Your task to perform on an android device: Add "razer thresher" to the cart on amazon.com Image 0: 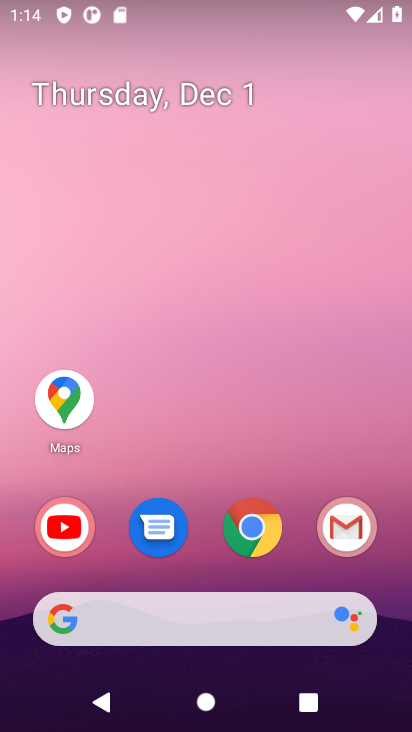
Step 0: click (255, 539)
Your task to perform on an android device: Add "razer thresher" to the cart on amazon.com Image 1: 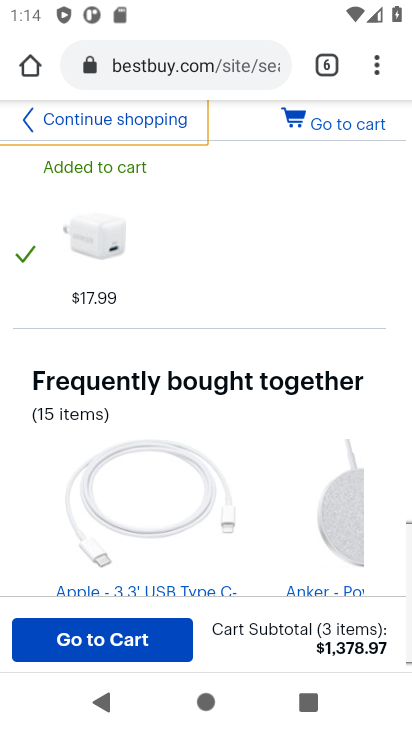
Step 1: click (159, 70)
Your task to perform on an android device: Add "razer thresher" to the cart on amazon.com Image 2: 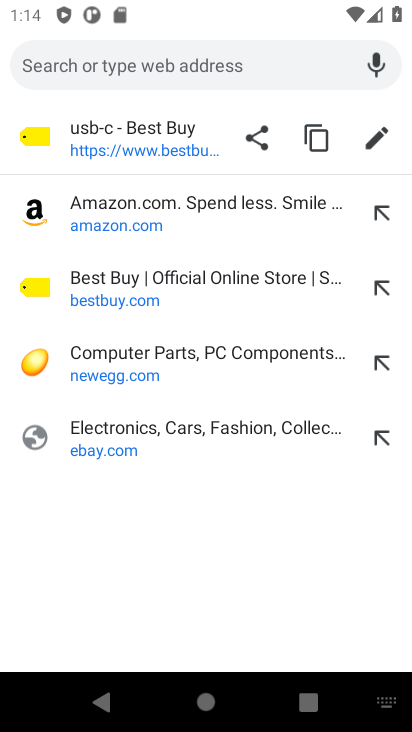
Step 2: click (108, 212)
Your task to perform on an android device: Add "razer thresher" to the cart on amazon.com Image 3: 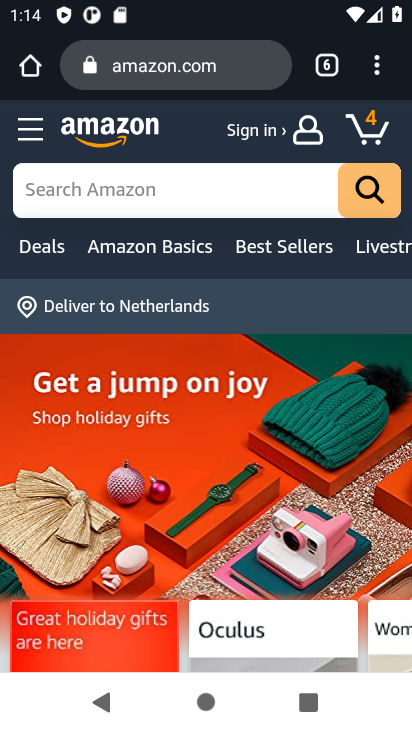
Step 3: click (125, 197)
Your task to perform on an android device: Add "razer thresher" to the cart on amazon.com Image 4: 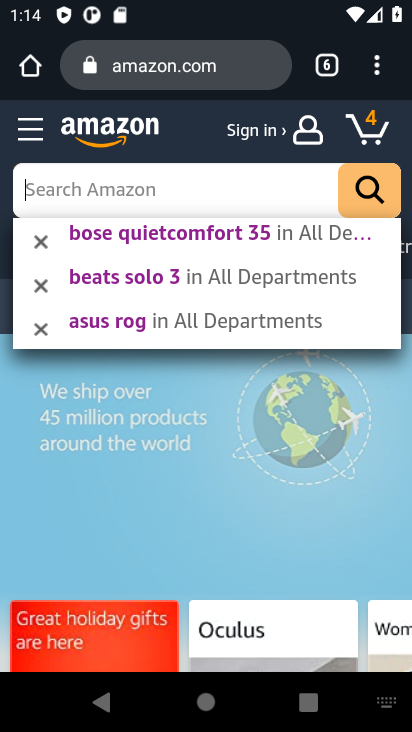
Step 4: type "razer thresher"
Your task to perform on an android device: Add "razer thresher" to the cart on amazon.com Image 5: 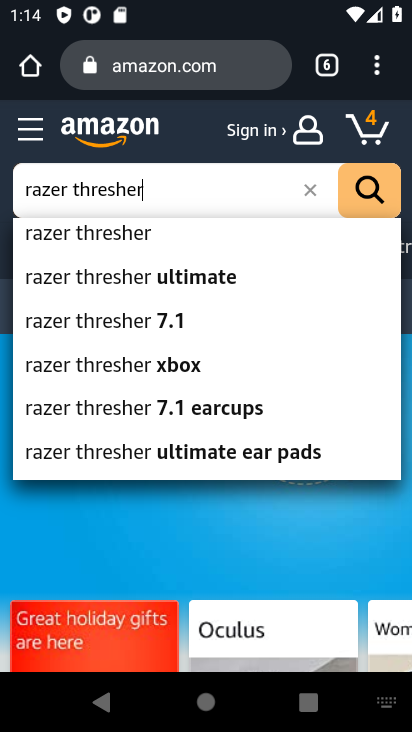
Step 5: click (118, 242)
Your task to perform on an android device: Add "razer thresher" to the cart on amazon.com Image 6: 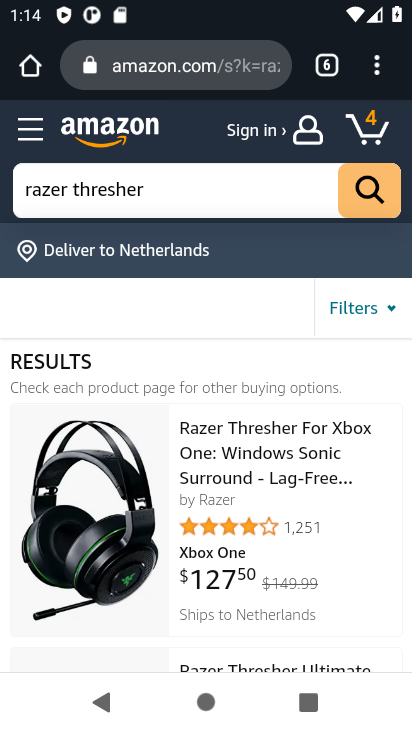
Step 6: drag from (222, 519) to (228, 327)
Your task to perform on an android device: Add "razer thresher" to the cart on amazon.com Image 7: 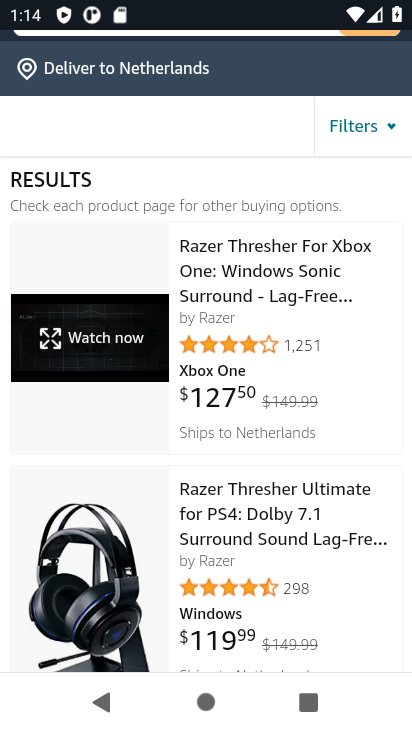
Step 7: click (235, 279)
Your task to perform on an android device: Add "razer thresher" to the cart on amazon.com Image 8: 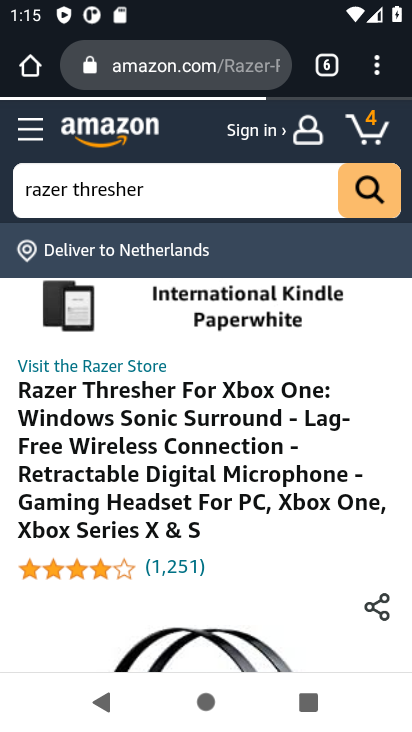
Step 8: drag from (243, 514) to (253, 216)
Your task to perform on an android device: Add "razer thresher" to the cart on amazon.com Image 9: 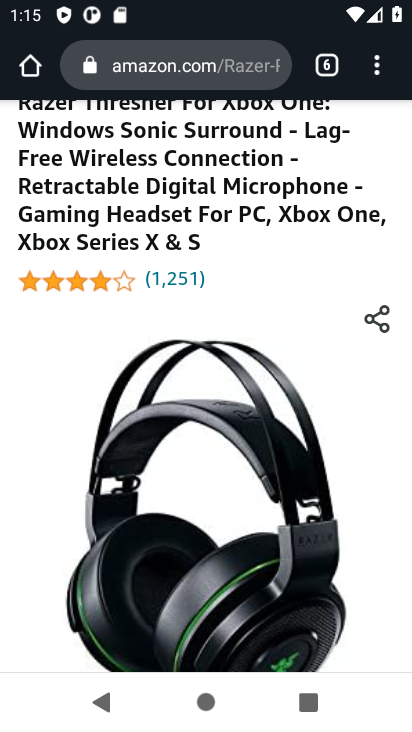
Step 9: drag from (256, 515) to (247, 254)
Your task to perform on an android device: Add "razer thresher" to the cart on amazon.com Image 10: 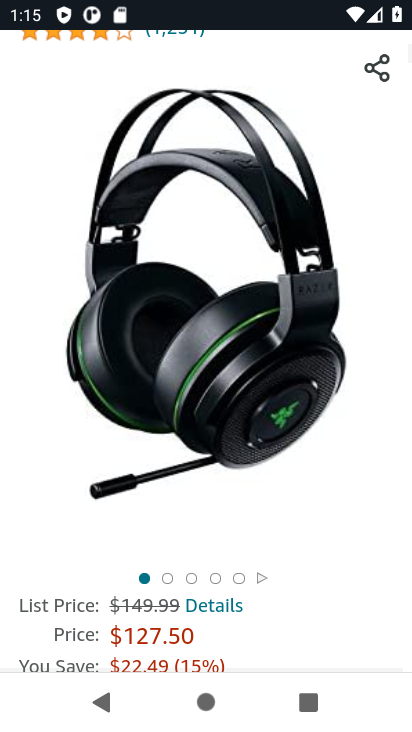
Step 10: drag from (260, 529) to (252, 256)
Your task to perform on an android device: Add "razer thresher" to the cart on amazon.com Image 11: 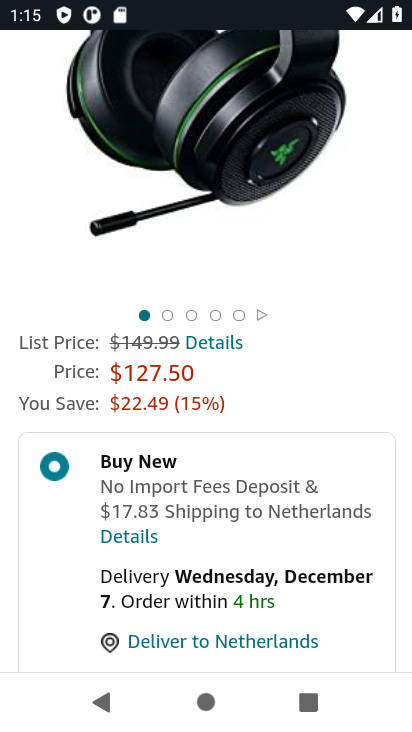
Step 11: drag from (257, 496) to (243, 252)
Your task to perform on an android device: Add "razer thresher" to the cart on amazon.com Image 12: 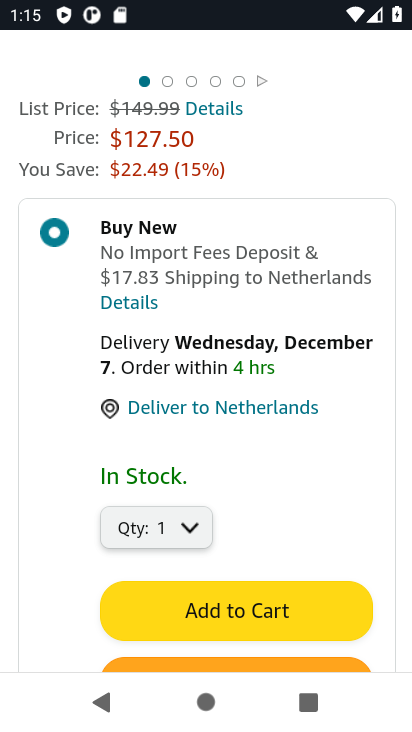
Step 12: click (213, 613)
Your task to perform on an android device: Add "razer thresher" to the cart on amazon.com Image 13: 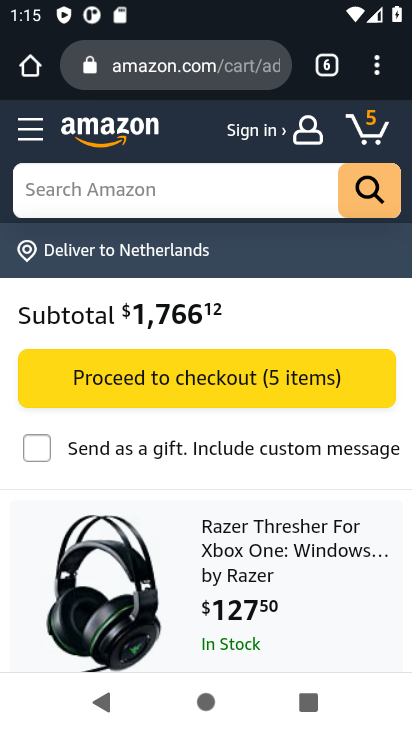
Step 13: task complete